Your task to perform on an android device: open app "PlayWell" Image 0: 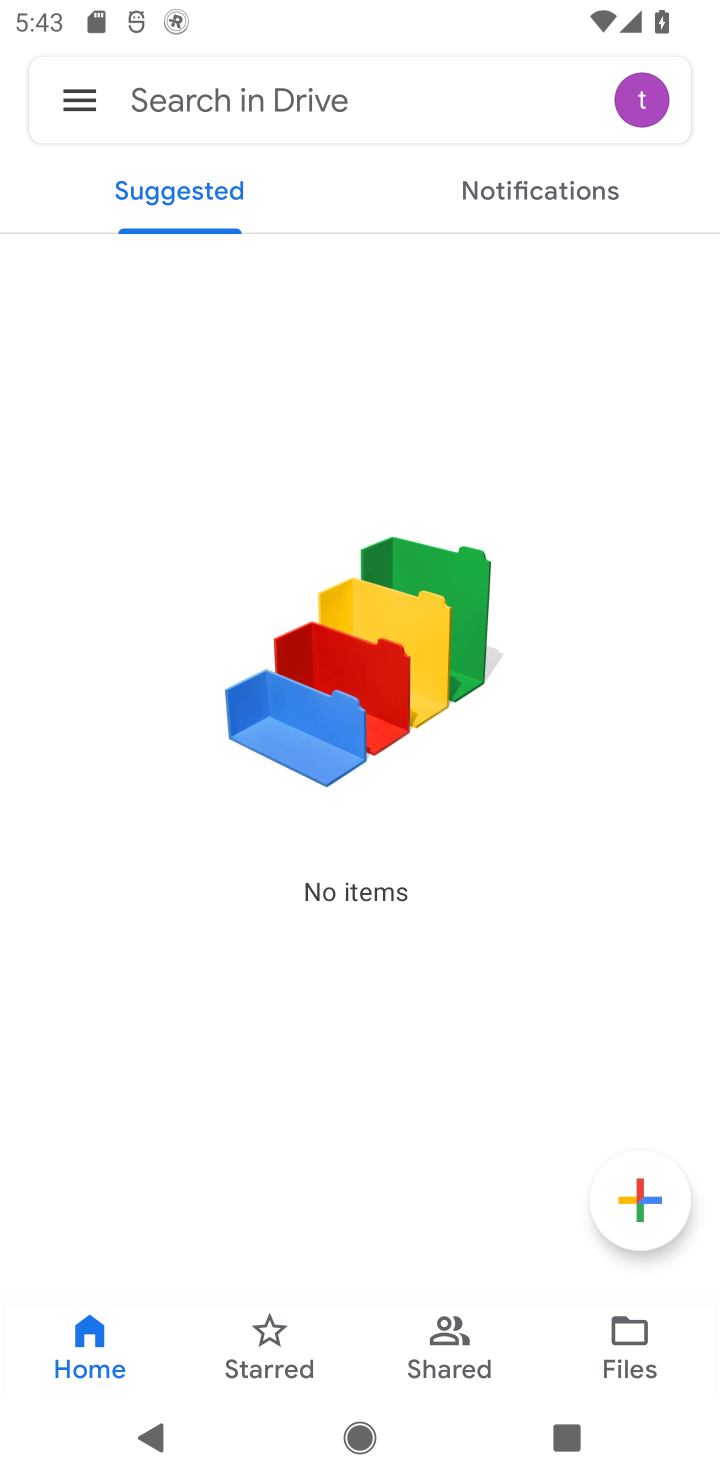
Step 0: press home button
Your task to perform on an android device: open app "PlayWell" Image 1: 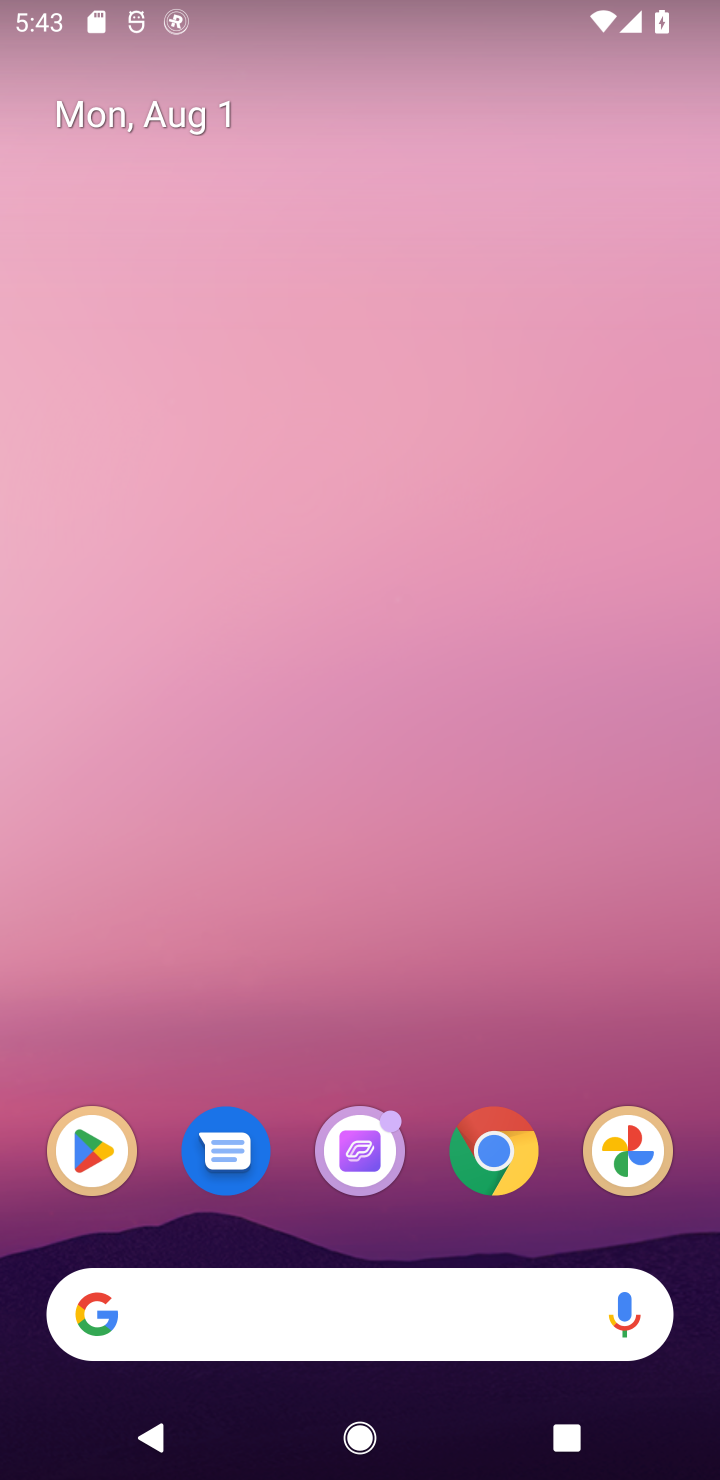
Step 1: click (82, 1149)
Your task to perform on an android device: open app "PlayWell" Image 2: 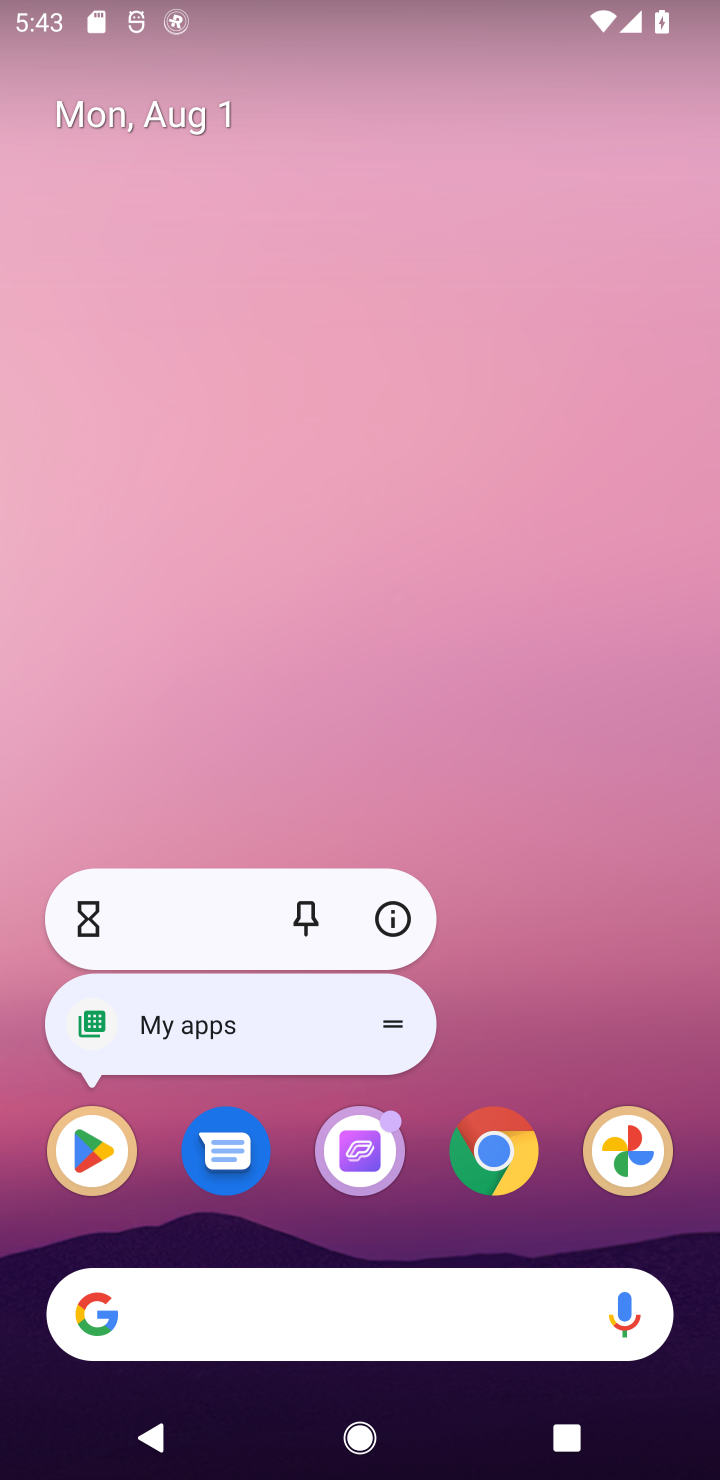
Step 2: click (96, 1170)
Your task to perform on an android device: open app "PlayWell" Image 3: 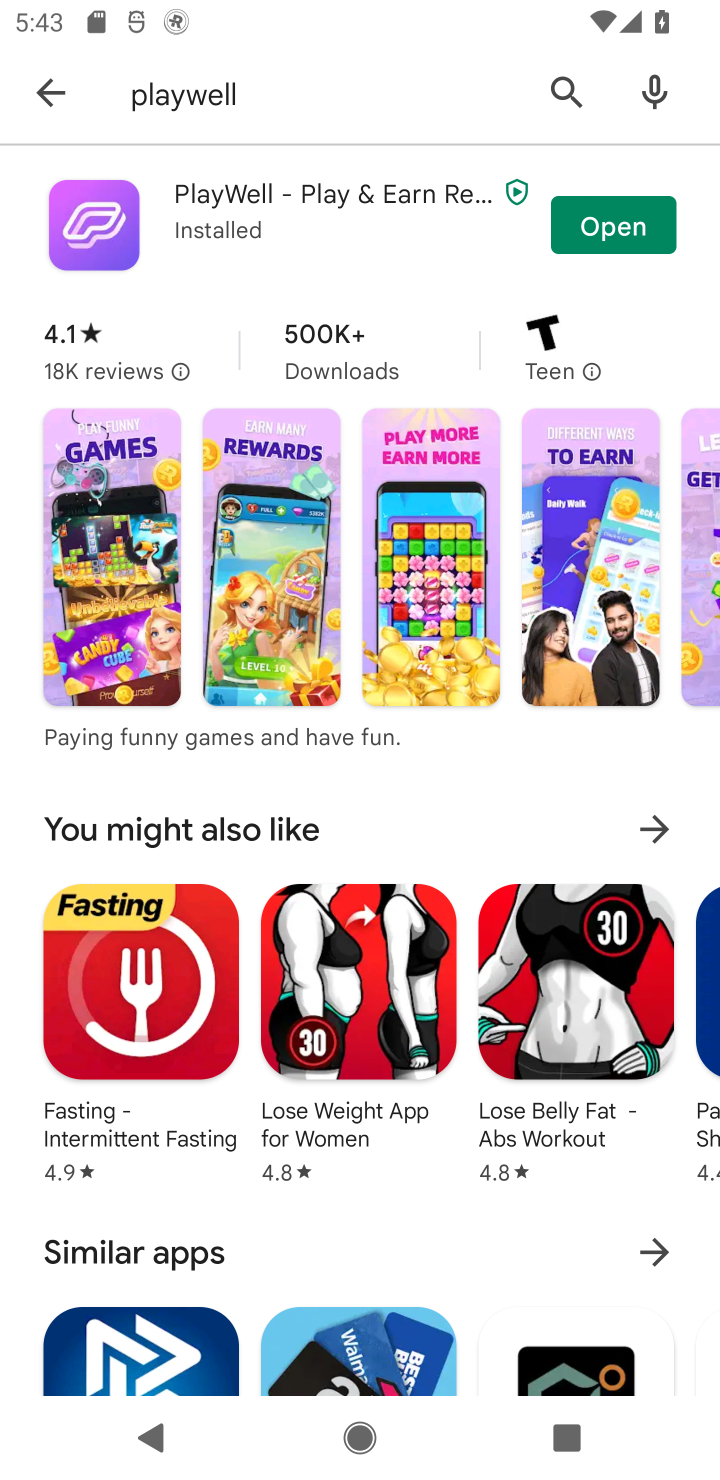
Step 3: click (608, 241)
Your task to perform on an android device: open app "PlayWell" Image 4: 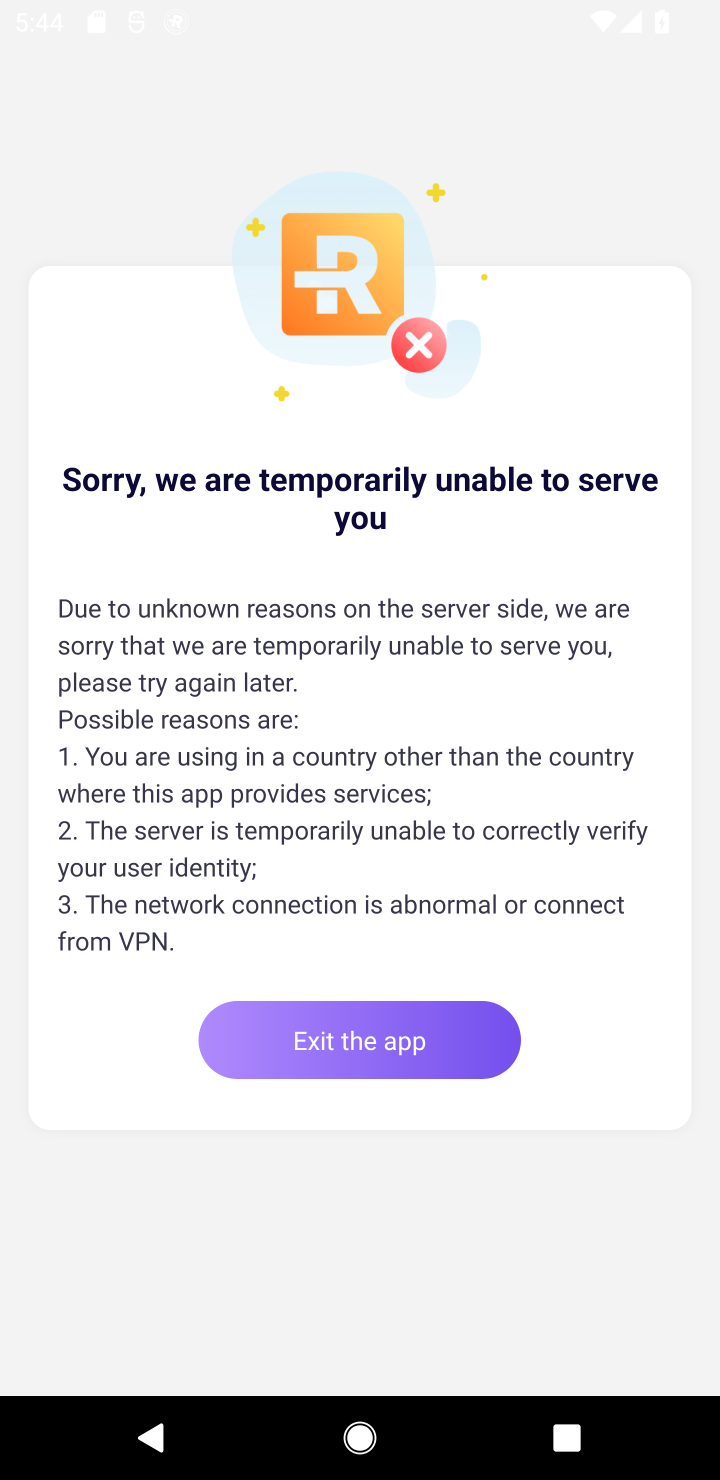
Step 4: task complete